Your task to perform on an android device: open app "Indeed Job Search" (install if not already installed), go to login, and select forgot password Image 0: 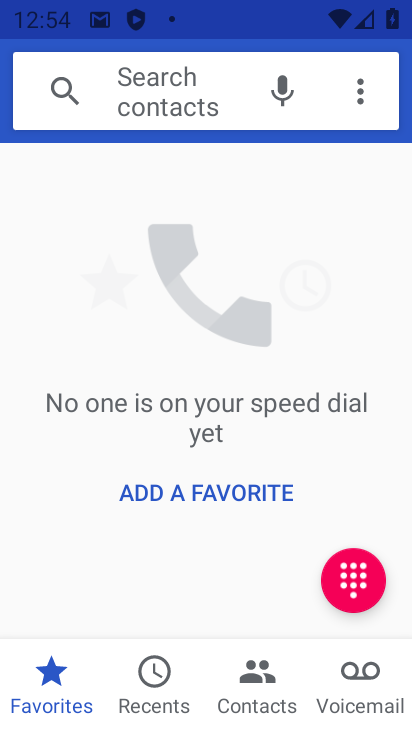
Step 0: press home button
Your task to perform on an android device: open app "Indeed Job Search" (install if not already installed), go to login, and select forgot password Image 1: 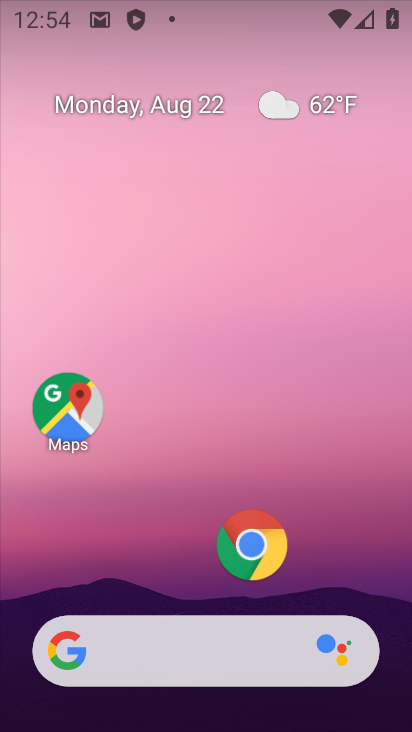
Step 1: drag from (151, 559) to (240, 77)
Your task to perform on an android device: open app "Indeed Job Search" (install if not already installed), go to login, and select forgot password Image 2: 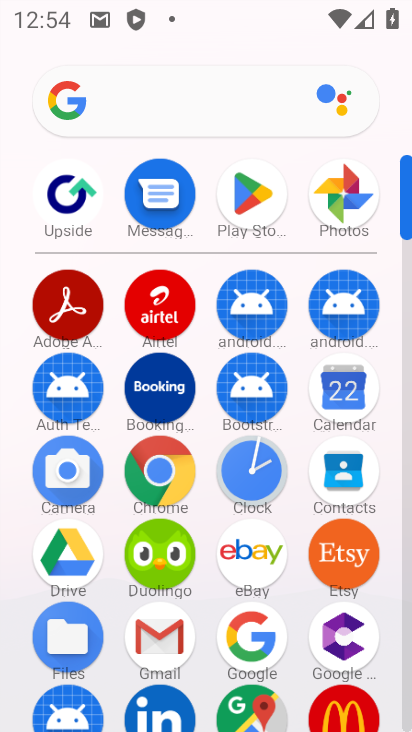
Step 2: click (250, 222)
Your task to perform on an android device: open app "Indeed Job Search" (install if not already installed), go to login, and select forgot password Image 3: 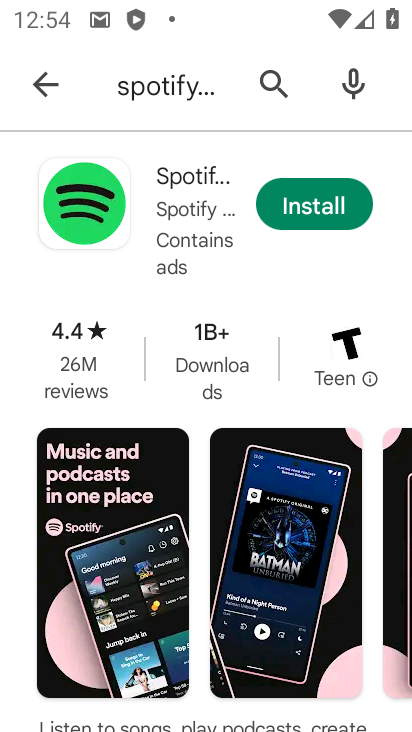
Step 3: click (278, 60)
Your task to perform on an android device: open app "Indeed Job Search" (install if not already installed), go to login, and select forgot password Image 4: 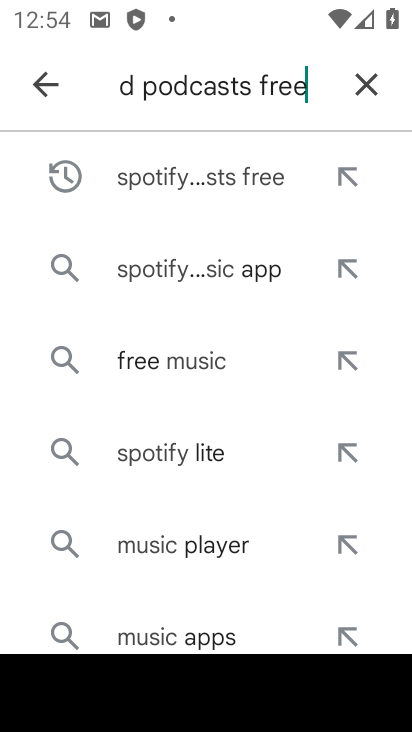
Step 4: click (365, 71)
Your task to perform on an android device: open app "Indeed Job Search" (install if not already installed), go to login, and select forgot password Image 5: 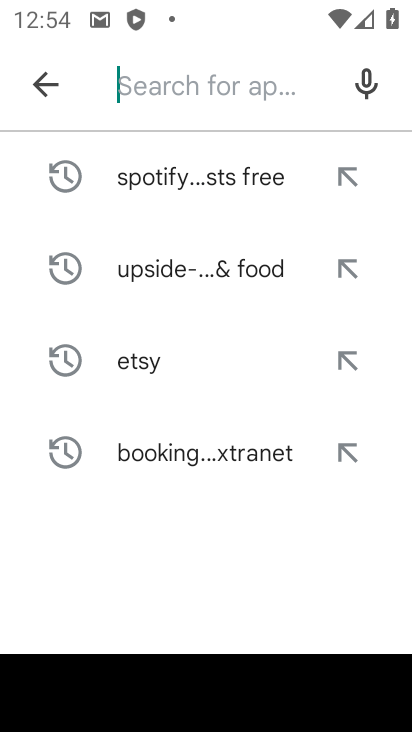
Step 5: click (189, 88)
Your task to perform on an android device: open app "Indeed Job Search" (install if not already installed), go to login, and select forgot password Image 6: 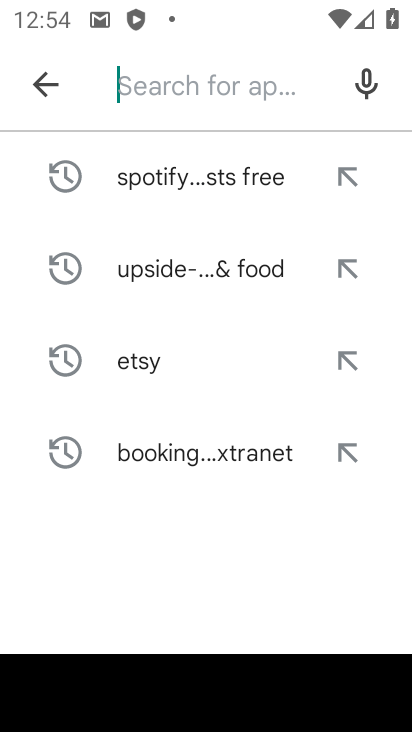
Step 6: type "Indeed Job Search"
Your task to perform on an android device: open app "Indeed Job Search" (install if not already installed), go to login, and select forgot password Image 7: 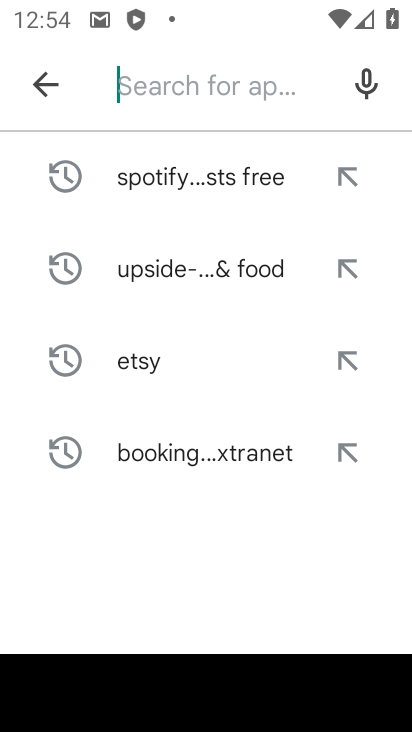
Step 7: click (157, 571)
Your task to perform on an android device: open app "Indeed Job Search" (install if not already installed), go to login, and select forgot password Image 8: 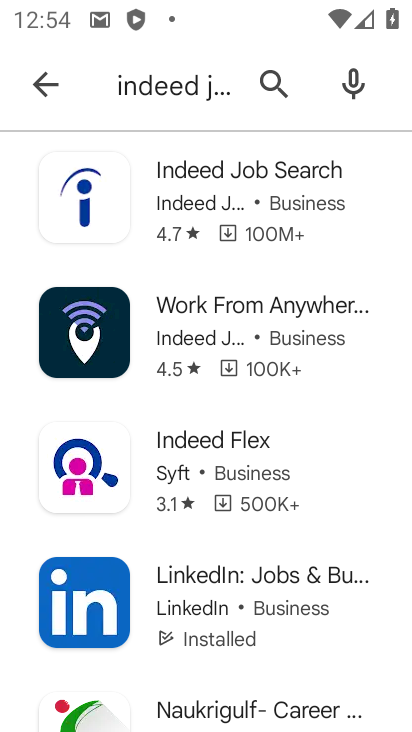
Step 8: click (210, 209)
Your task to perform on an android device: open app "Indeed Job Search" (install if not already installed), go to login, and select forgot password Image 9: 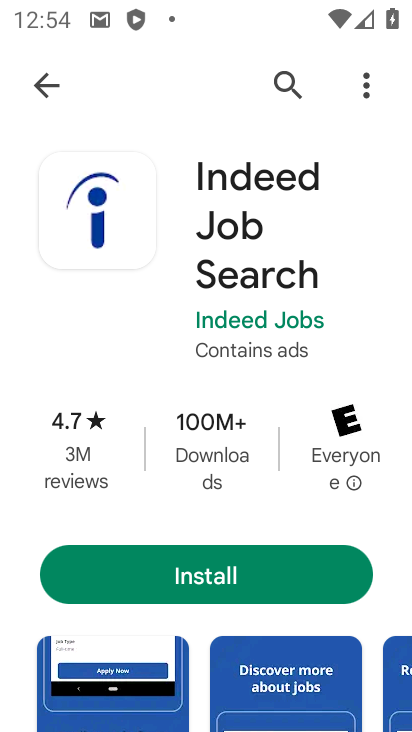
Step 9: click (202, 571)
Your task to perform on an android device: open app "Indeed Job Search" (install if not already installed), go to login, and select forgot password Image 10: 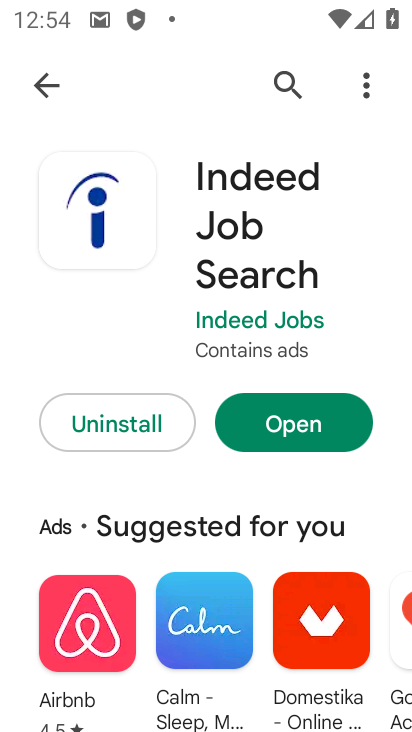
Step 10: click (294, 420)
Your task to perform on an android device: open app "Indeed Job Search" (install if not already installed), go to login, and select forgot password Image 11: 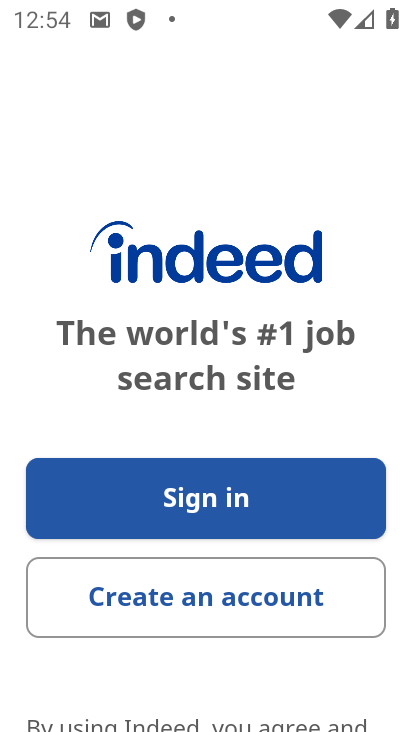
Step 11: drag from (203, 409) to (237, 54)
Your task to perform on an android device: open app "Indeed Job Search" (install if not already installed), go to login, and select forgot password Image 12: 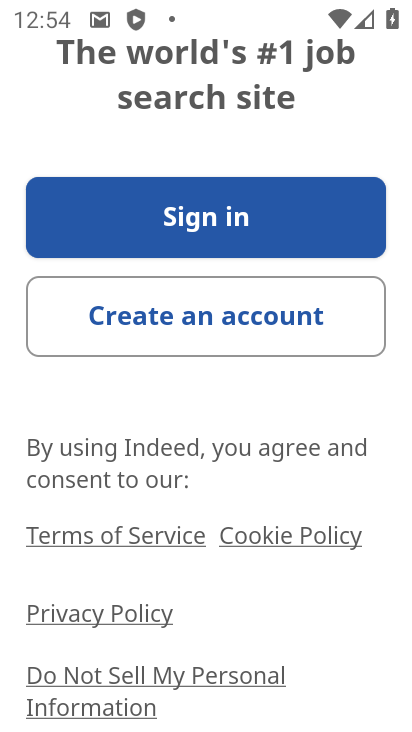
Step 12: click (237, 227)
Your task to perform on an android device: open app "Indeed Job Search" (install if not already installed), go to login, and select forgot password Image 13: 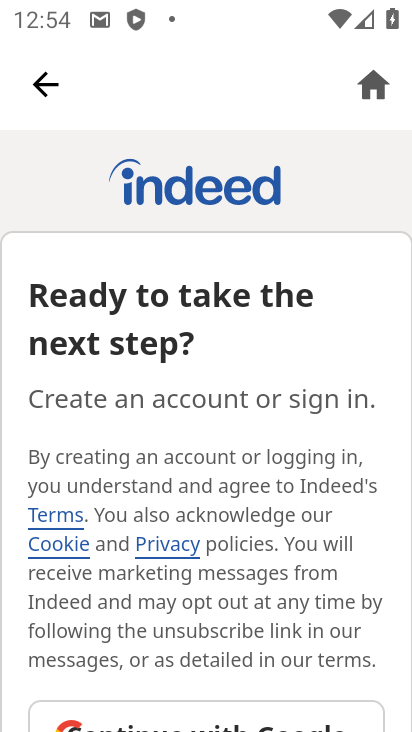
Step 13: task complete